Your task to perform on an android device: Show the shopping cart on walmart.com. Search for duracell triple a on walmart.com, select the first entry, and add it to the cart. Image 0: 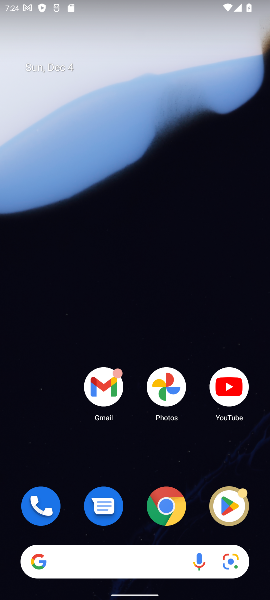
Step 0: click (180, 511)
Your task to perform on an android device: Show the shopping cart on walmart.com. Search for duracell triple a on walmart.com, select the first entry, and add it to the cart. Image 1: 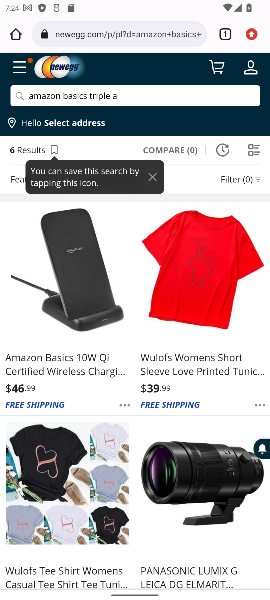
Step 1: click (186, 34)
Your task to perform on an android device: Show the shopping cart on walmart.com. Search for duracell triple a on walmart.com, select the first entry, and add it to the cart. Image 2: 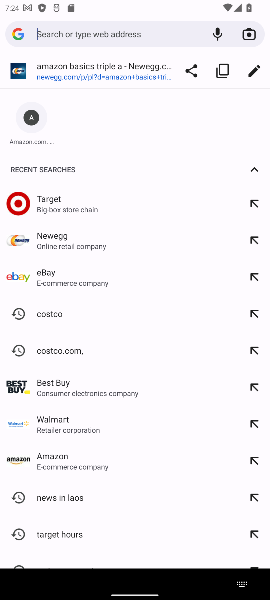
Step 2: click (51, 421)
Your task to perform on an android device: Show the shopping cart on walmart.com. Search for duracell triple a on walmart.com, select the first entry, and add it to the cart. Image 3: 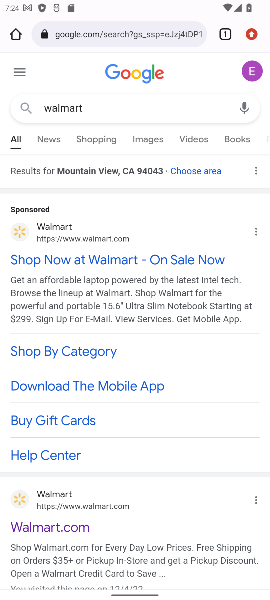
Step 3: click (42, 527)
Your task to perform on an android device: Show the shopping cart on walmart.com. Search for duracell triple a on walmart.com, select the first entry, and add it to the cart. Image 4: 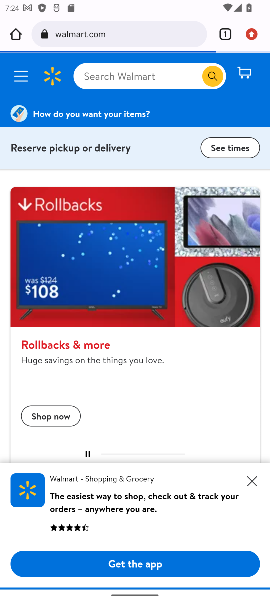
Step 4: click (241, 70)
Your task to perform on an android device: Show the shopping cart on walmart.com. Search for duracell triple a on walmart.com, select the first entry, and add it to the cart. Image 5: 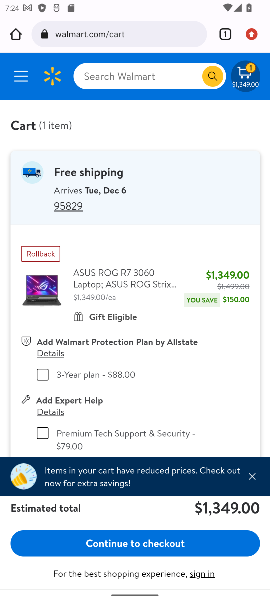
Step 5: click (108, 79)
Your task to perform on an android device: Show the shopping cart on walmart.com. Search for duracell triple a on walmart.com, select the first entry, and add it to the cart. Image 6: 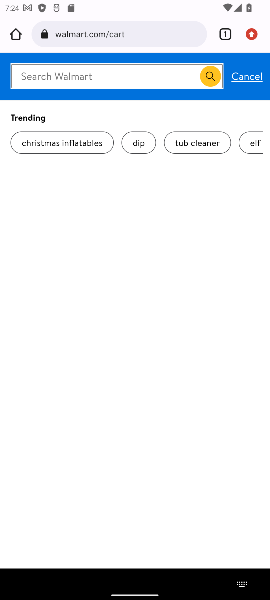
Step 6: type "duracell triple a "
Your task to perform on an android device: Show the shopping cart on walmart.com. Search for duracell triple a on walmart.com, select the first entry, and add it to the cart. Image 7: 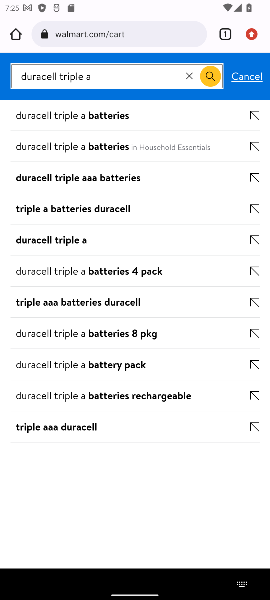
Step 7: click (211, 83)
Your task to perform on an android device: Show the shopping cart on walmart.com. Search for duracell triple a on walmart.com, select the first entry, and add it to the cart. Image 8: 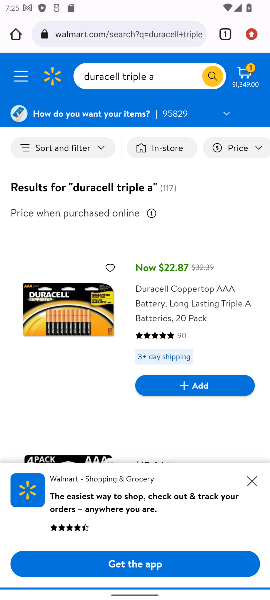
Step 8: click (201, 387)
Your task to perform on an android device: Show the shopping cart on walmart.com. Search for duracell triple a on walmart.com, select the first entry, and add it to the cart. Image 9: 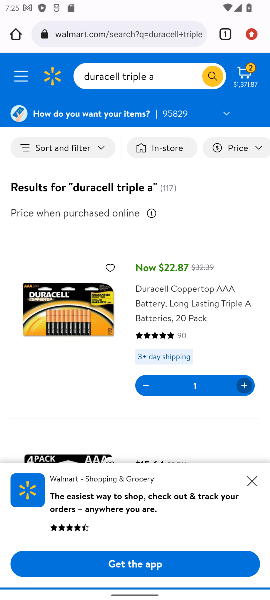
Step 9: task complete